Your task to perform on an android device: uninstall "Indeed Job Search" Image 0: 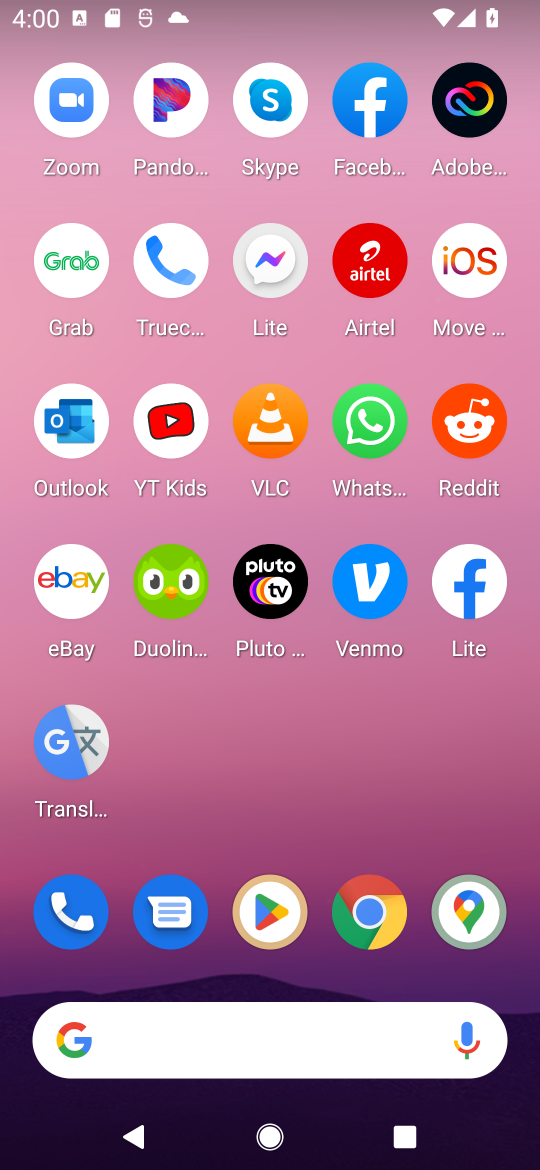
Step 0: drag from (229, 1036) to (337, 65)
Your task to perform on an android device: uninstall "Indeed Job Search" Image 1: 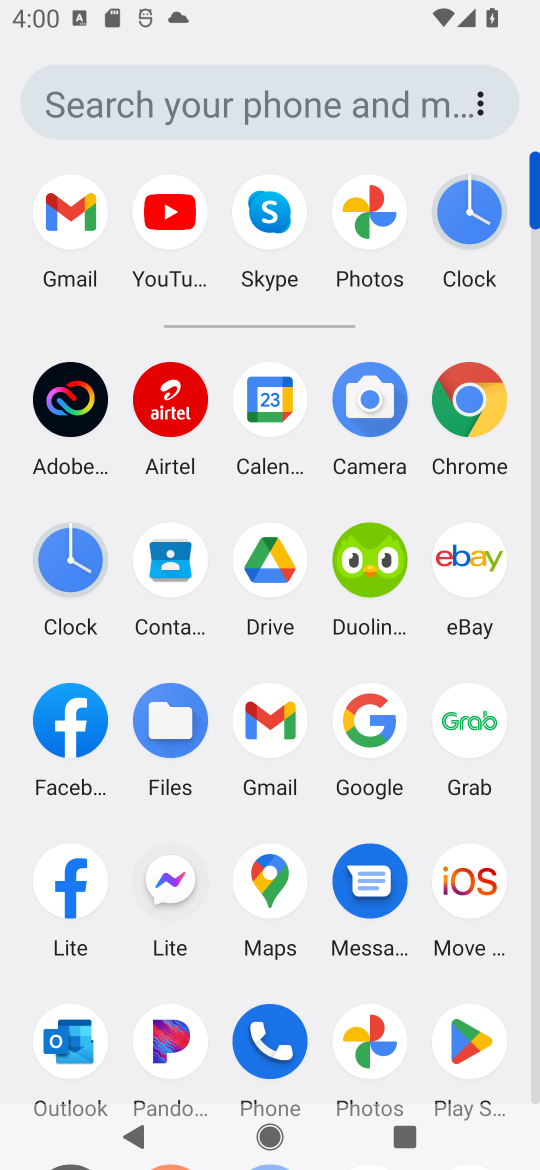
Step 1: click (469, 1043)
Your task to perform on an android device: uninstall "Indeed Job Search" Image 2: 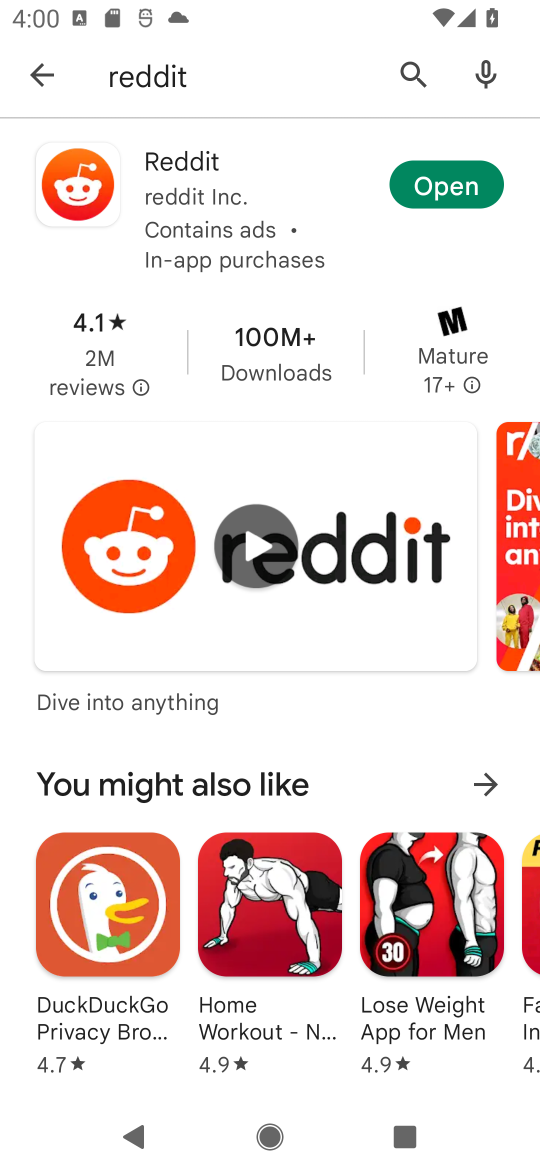
Step 2: press back button
Your task to perform on an android device: uninstall "Indeed Job Search" Image 3: 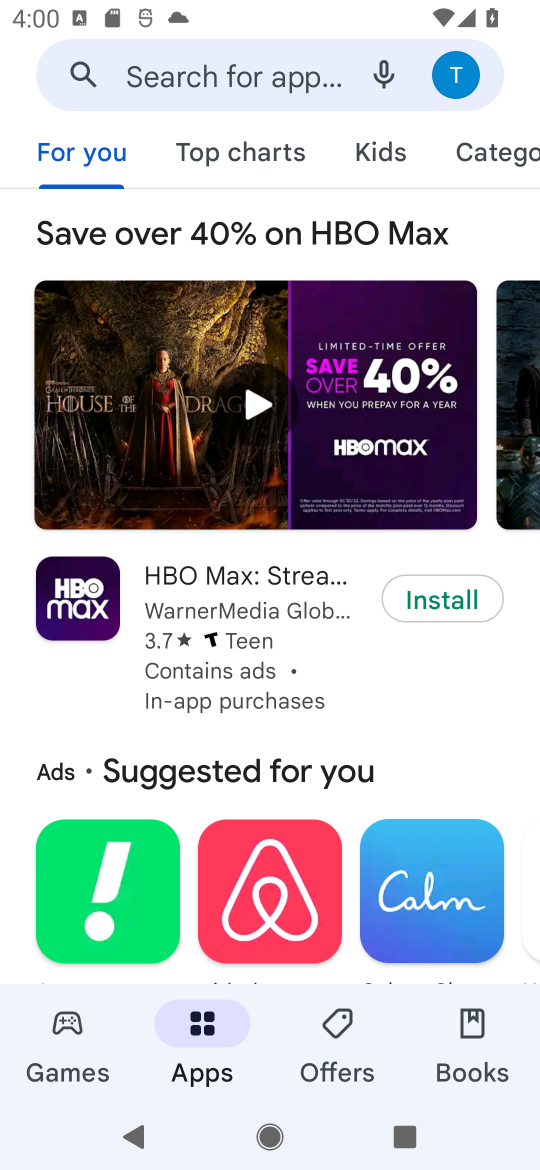
Step 3: click (225, 81)
Your task to perform on an android device: uninstall "Indeed Job Search" Image 4: 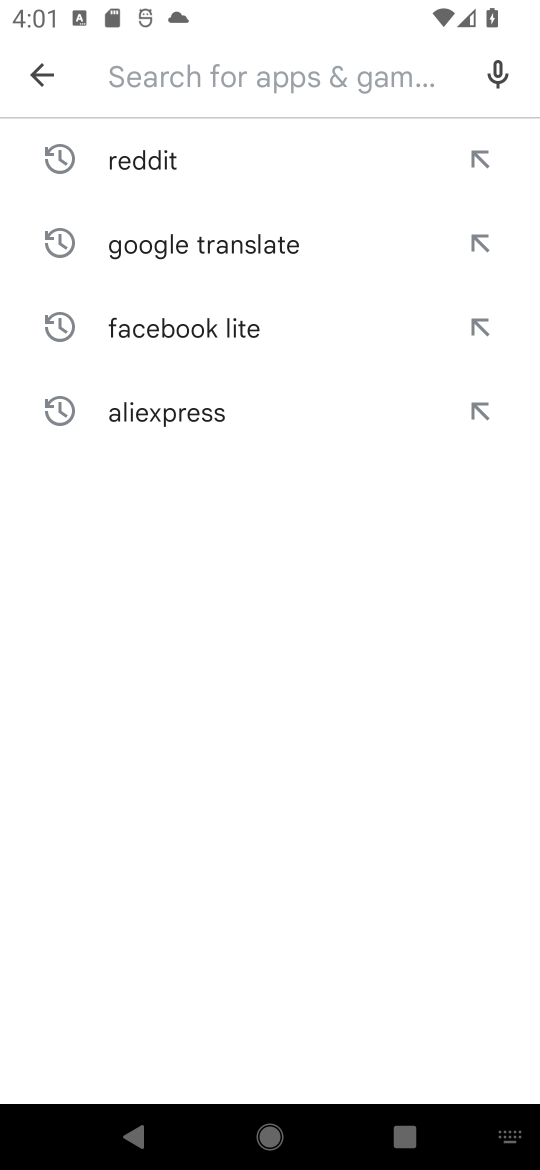
Step 4: type "Indeed Job Search"
Your task to perform on an android device: uninstall "Indeed Job Search" Image 5: 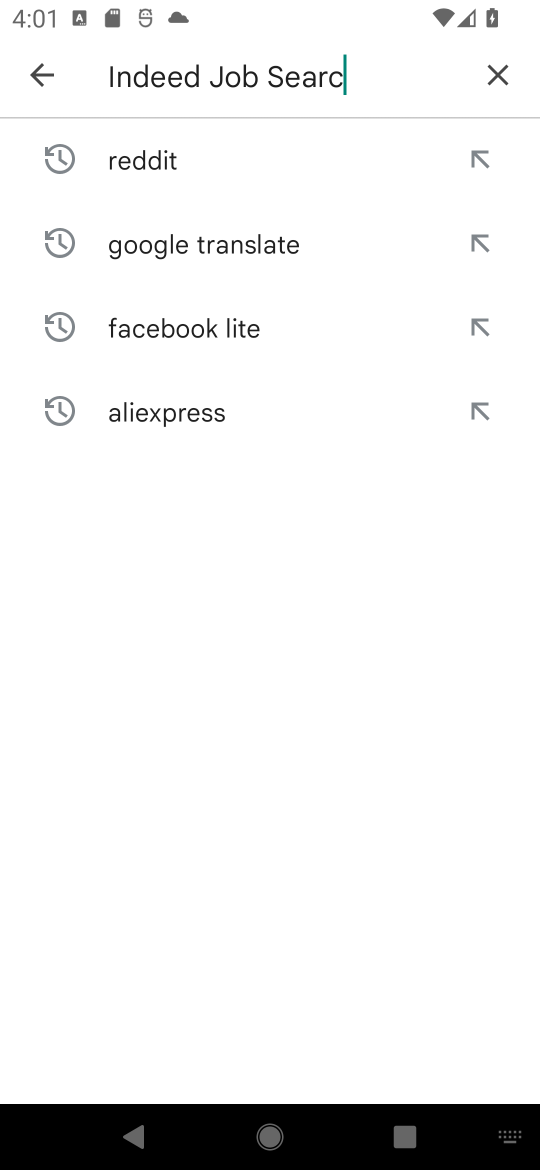
Step 5: type ""
Your task to perform on an android device: uninstall "Indeed Job Search" Image 6: 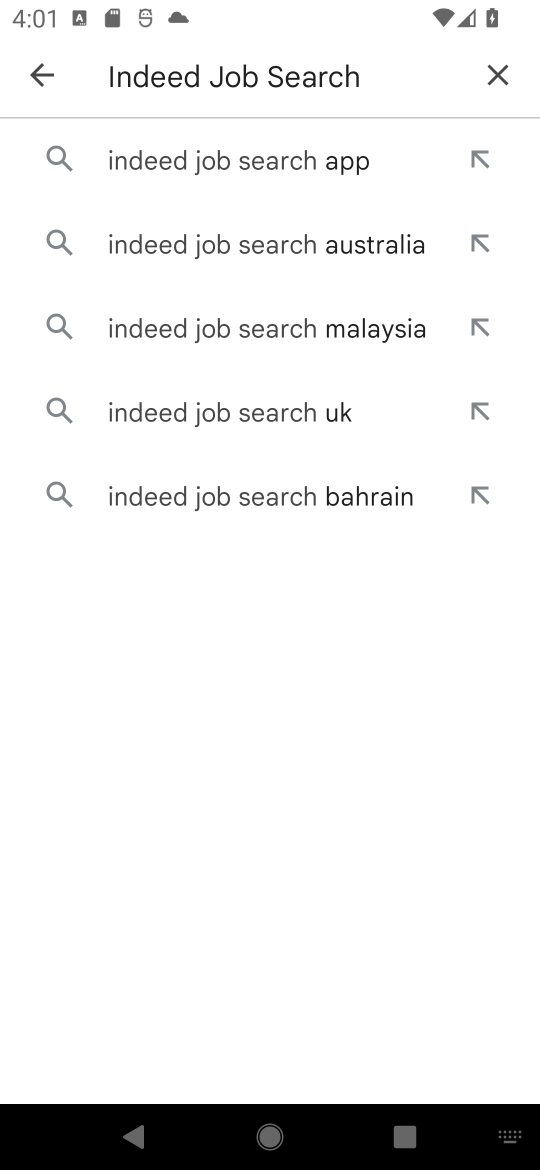
Step 6: click (260, 176)
Your task to perform on an android device: uninstall "Indeed Job Search" Image 7: 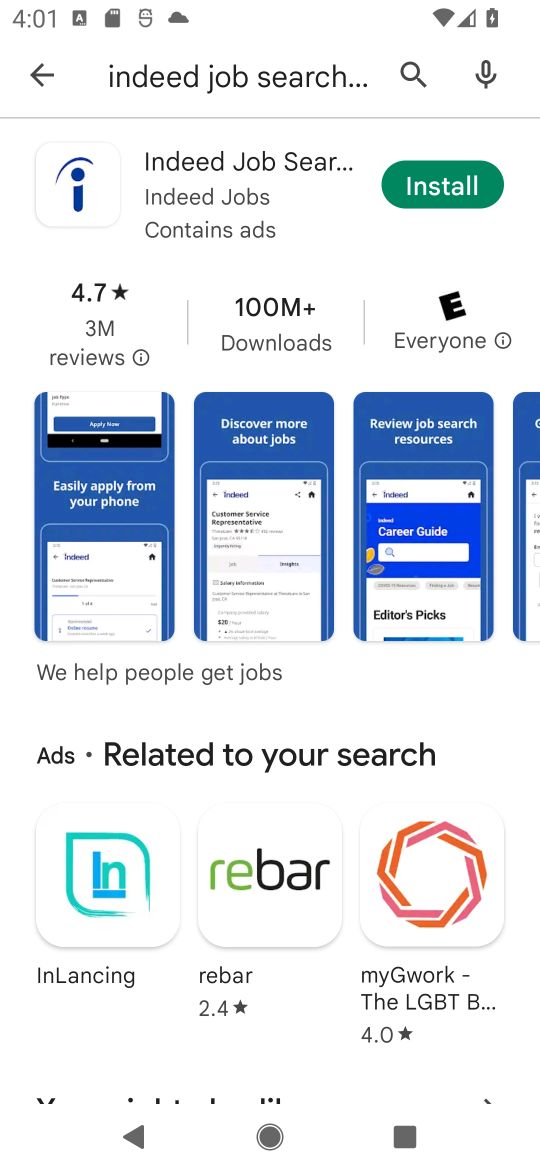
Step 7: task complete